Your task to perform on an android device: turn off priority inbox in the gmail app Image 0: 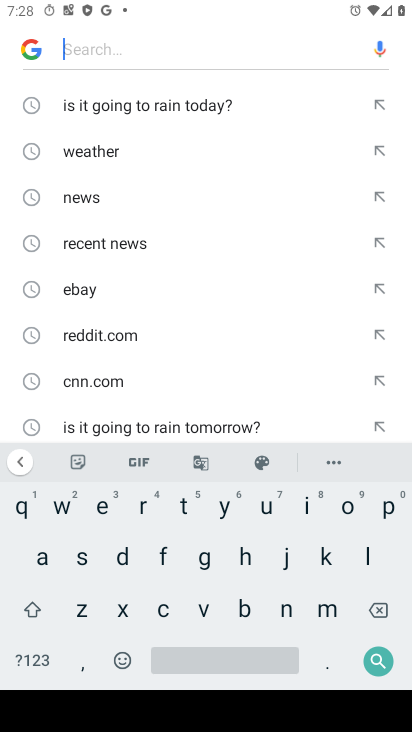
Step 0: press home button
Your task to perform on an android device: turn off priority inbox in the gmail app Image 1: 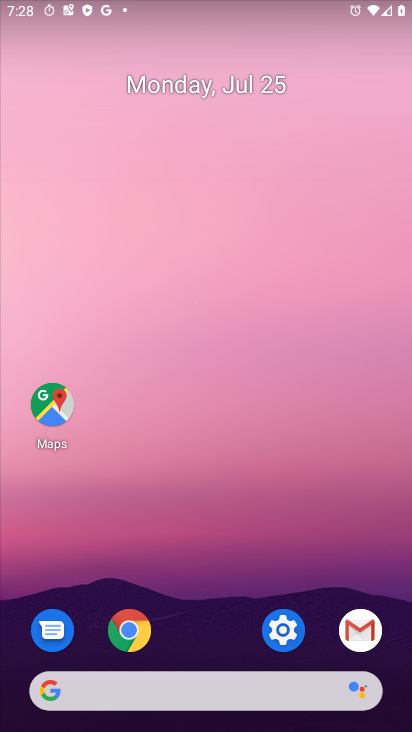
Step 1: click (389, 604)
Your task to perform on an android device: turn off priority inbox in the gmail app Image 2: 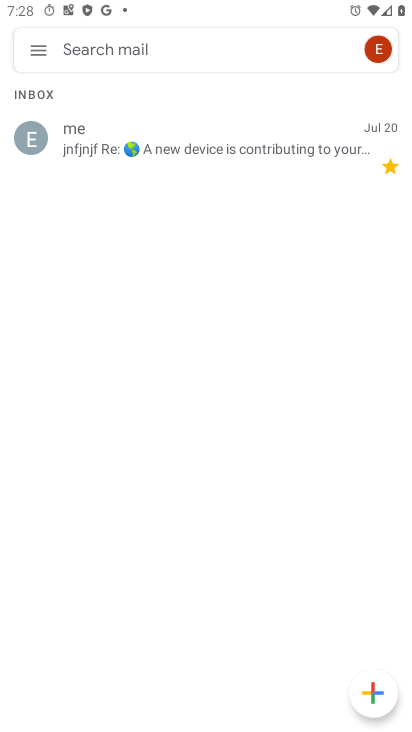
Step 2: click (40, 56)
Your task to perform on an android device: turn off priority inbox in the gmail app Image 3: 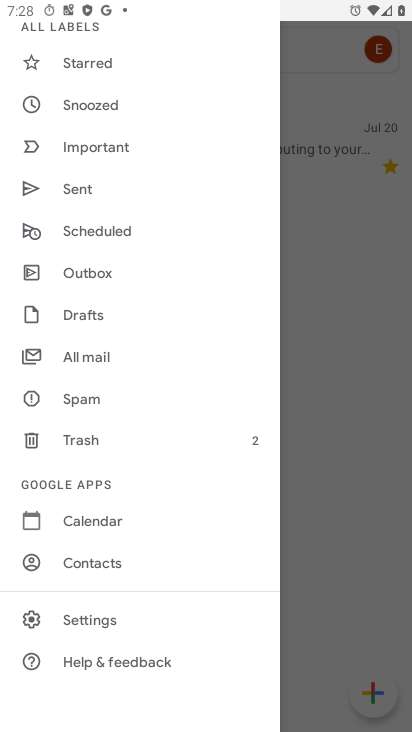
Step 3: click (88, 632)
Your task to perform on an android device: turn off priority inbox in the gmail app Image 4: 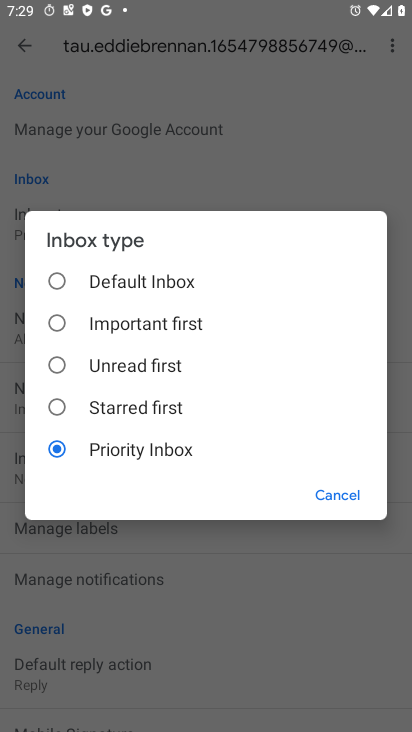
Step 4: click (114, 280)
Your task to perform on an android device: turn off priority inbox in the gmail app Image 5: 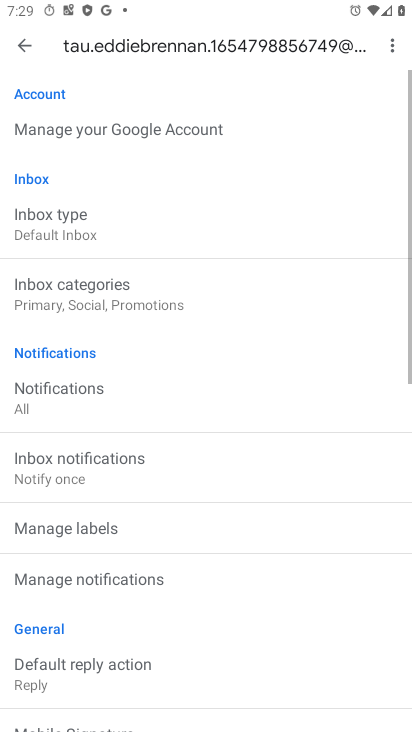
Step 5: task complete